Your task to perform on an android device: manage bookmarks in the chrome app Image 0: 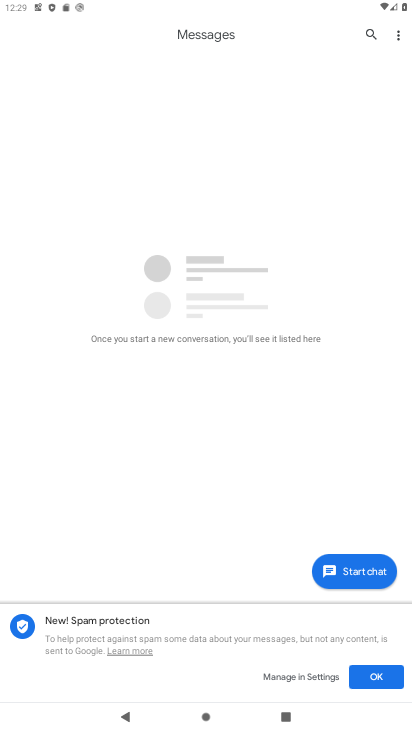
Step 0: press home button
Your task to perform on an android device: manage bookmarks in the chrome app Image 1: 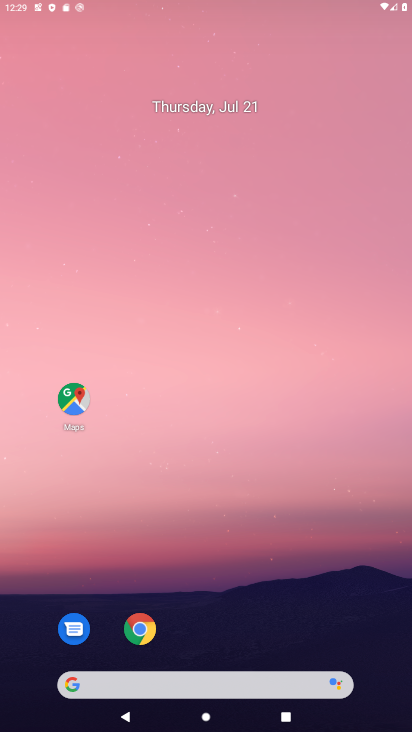
Step 1: drag from (370, 628) to (273, 154)
Your task to perform on an android device: manage bookmarks in the chrome app Image 2: 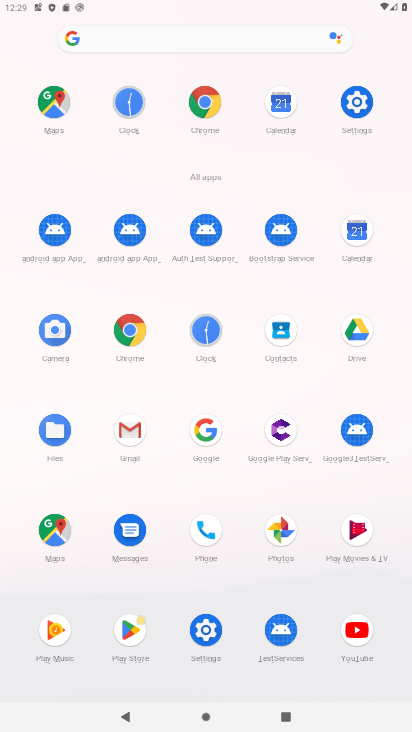
Step 2: click (128, 330)
Your task to perform on an android device: manage bookmarks in the chrome app Image 3: 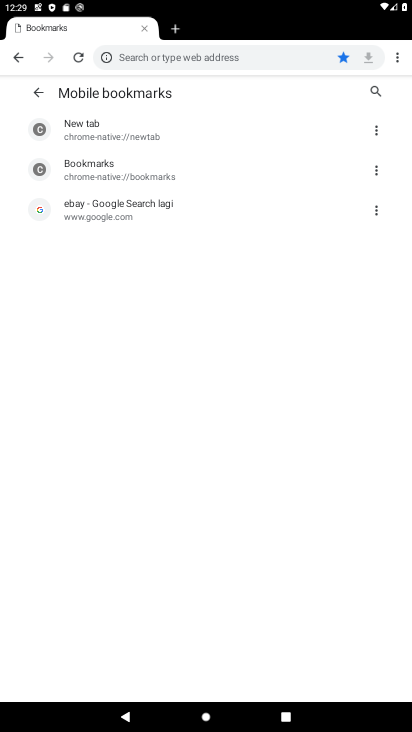
Step 3: click (380, 192)
Your task to perform on an android device: manage bookmarks in the chrome app Image 4: 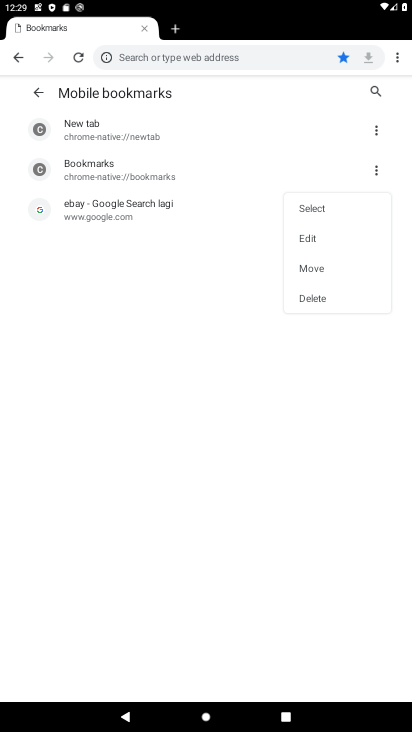
Step 4: click (315, 243)
Your task to perform on an android device: manage bookmarks in the chrome app Image 5: 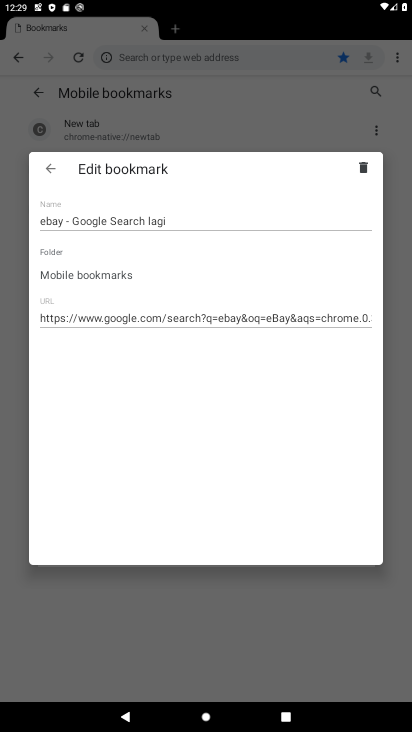
Step 5: click (297, 222)
Your task to perform on an android device: manage bookmarks in the chrome app Image 6: 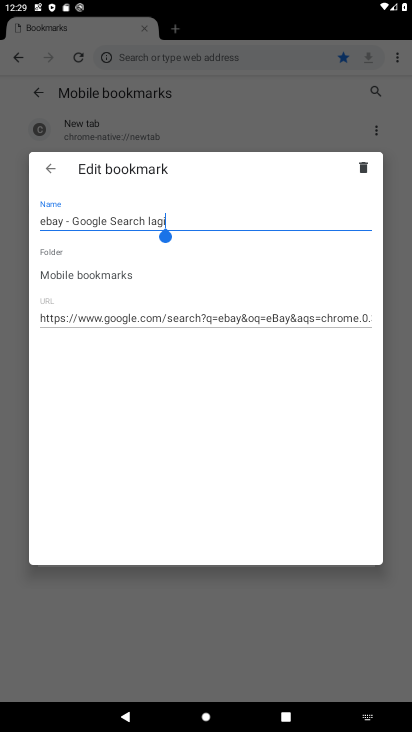
Step 6: type ""
Your task to perform on an android device: manage bookmarks in the chrome app Image 7: 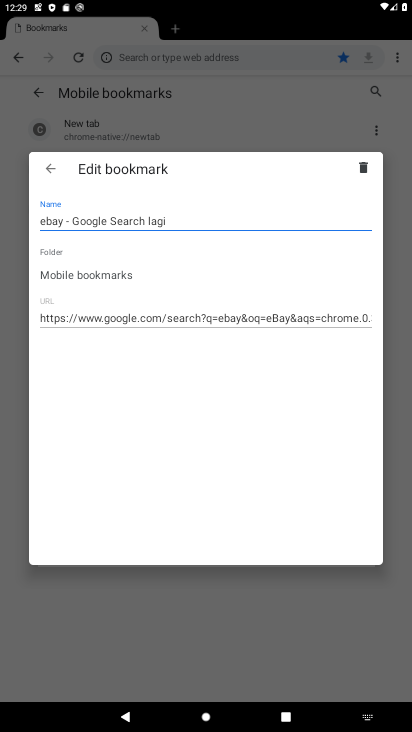
Step 7: type " jut"
Your task to perform on an android device: manage bookmarks in the chrome app Image 8: 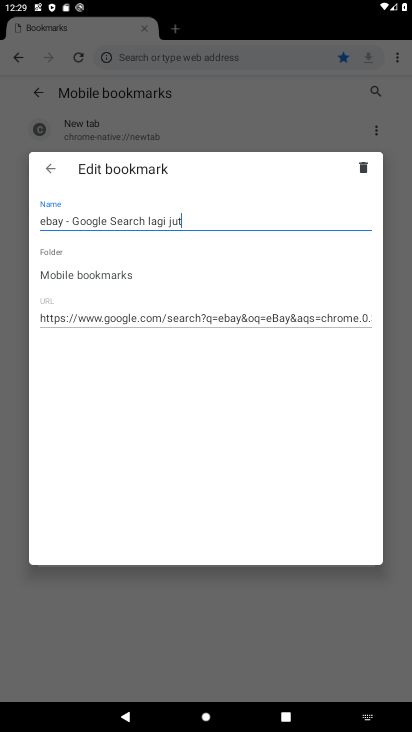
Step 8: click (194, 560)
Your task to perform on an android device: manage bookmarks in the chrome app Image 9: 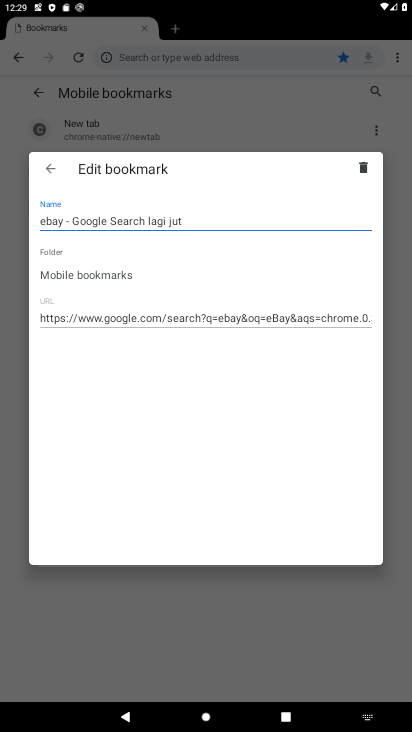
Step 9: click (220, 614)
Your task to perform on an android device: manage bookmarks in the chrome app Image 10: 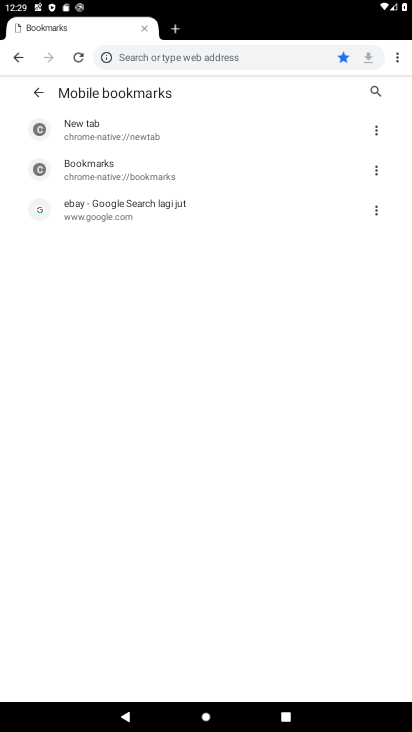
Step 10: task complete